Your task to perform on an android device: What's on my calendar tomorrow? Image 0: 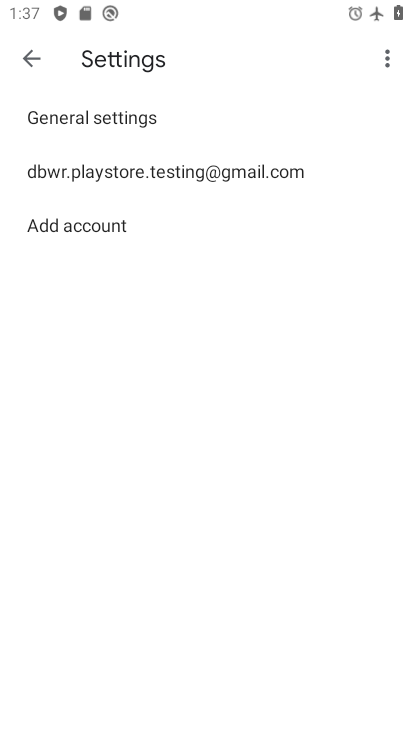
Step 0: press home button
Your task to perform on an android device: What's on my calendar tomorrow? Image 1: 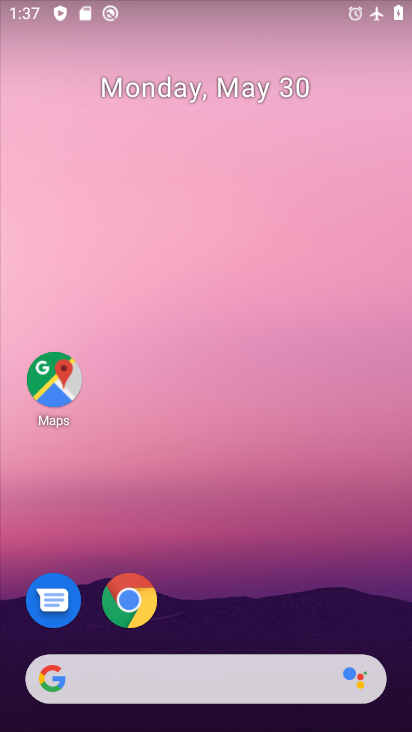
Step 1: drag from (220, 651) to (146, 71)
Your task to perform on an android device: What's on my calendar tomorrow? Image 2: 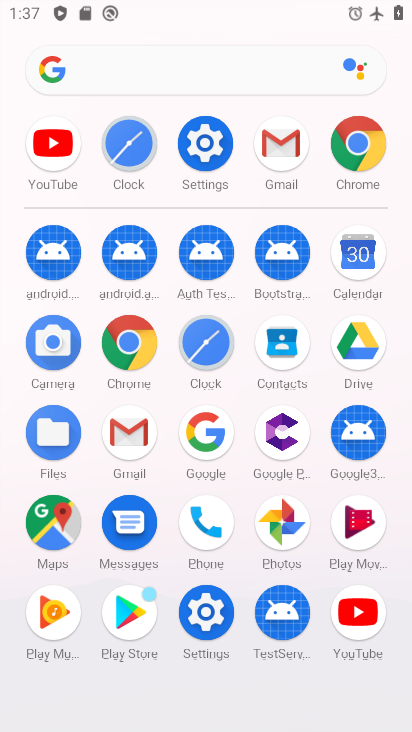
Step 2: click (358, 252)
Your task to perform on an android device: What's on my calendar tomorrow? Image 3: 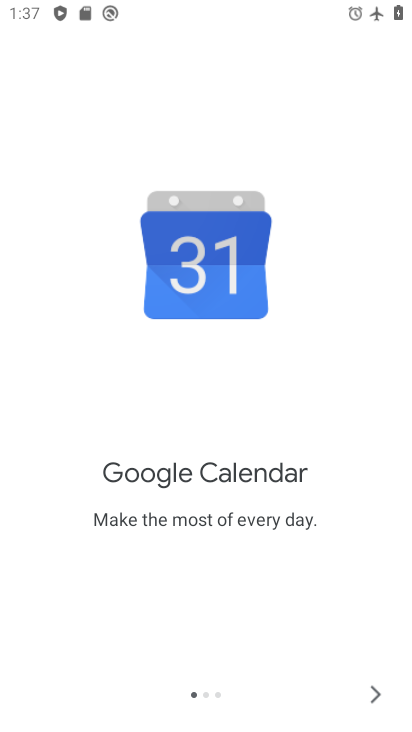
Step 3: click (377, 684)
Your task to perform on an android device: What's on my calendar tomorrow? Image 4: 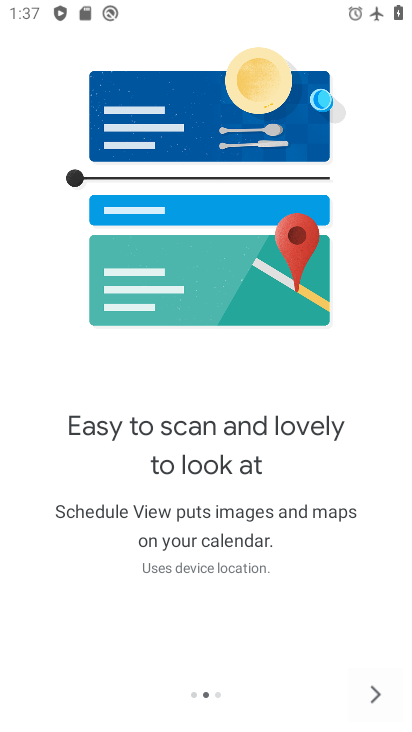
Step 4: click (375, 682)
Your task to perform on an android device: What's on my calendar tomorrow? Image 5: 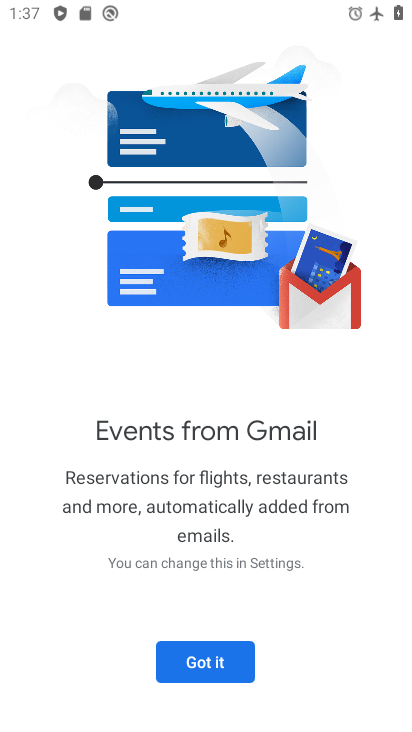
Step 5: click (210, 673)
Your task to perform on an android device: What's on my calendar tomorrow? Image 6: 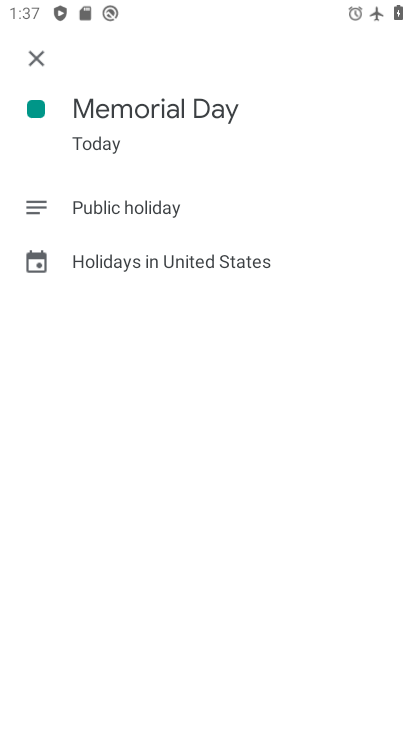
Step 6: click (42, 58)
Your task to perform on an android device: What's on my calendar tomorrow? Image 7: 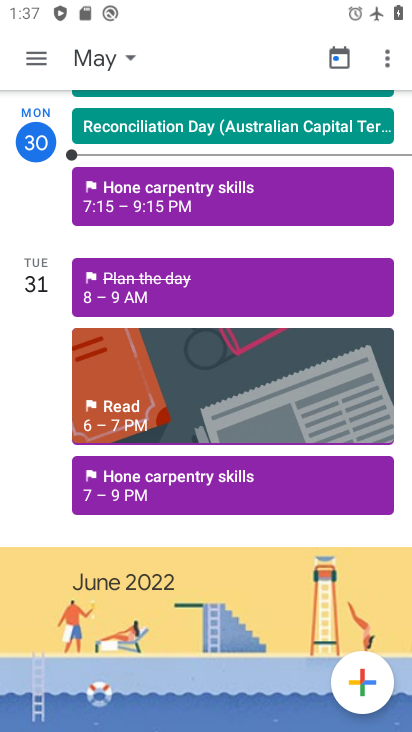
Step 7: click (33, 293)
Your task to perform on an android device: What's on my calendar tomorrow? Image 8: 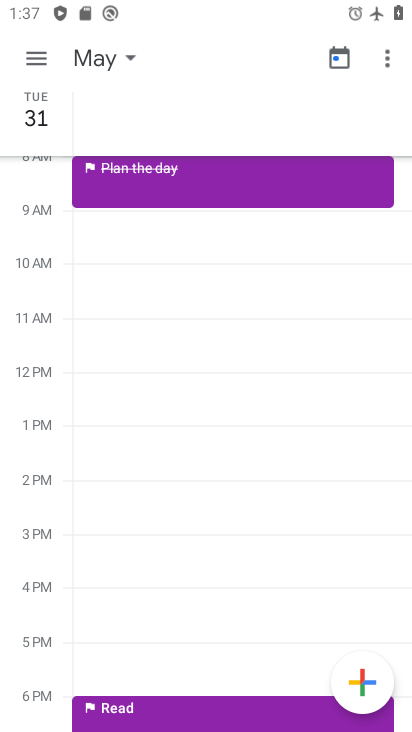
Step 8: task complete